Your task to perform on an android device: Search for Mexican restaurants on Maps Image 0: 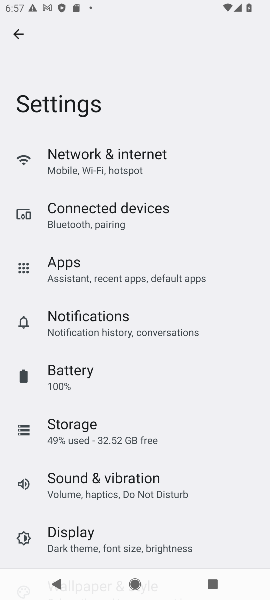
Step 0: press home button
Your task to perform on an android device: Search for Mexican restaurants on Maps Image 1: 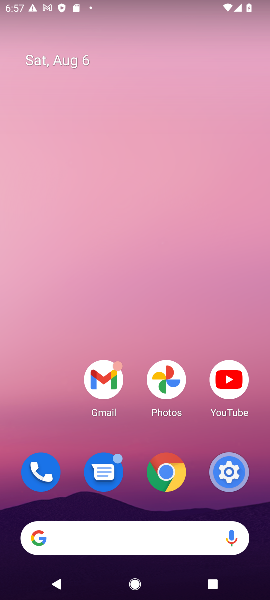
Step 1: drag from (197, 496) to (203, 122)
Your task to perform on an android device: Search for Mexican restaurants on Maps Image 2: 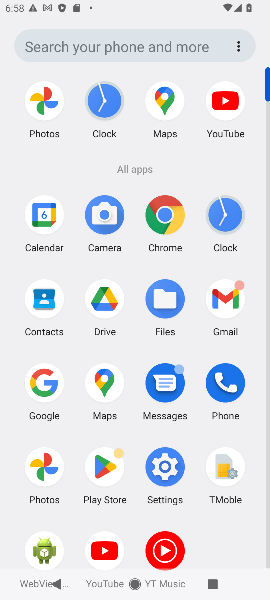
Step 2: click (102, 379)
Your task to perform on an android device: Search for Mexican restaurants on Maps Image 3: 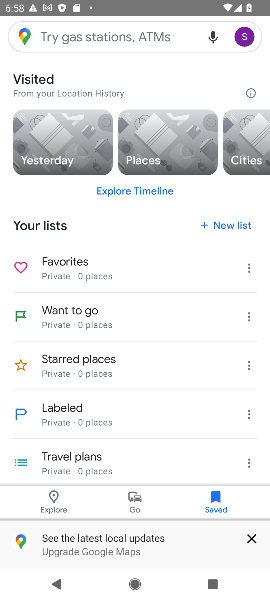
Step 3: press back button
Your task to perform on an android device: Search for Mexican restaurants on Maps Image 4: 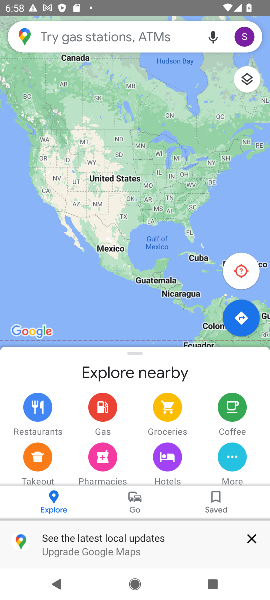
Step 4: click (73, 32)
Your task to perform on an android device: Search for Mexican restaurants on Maps Image 5: 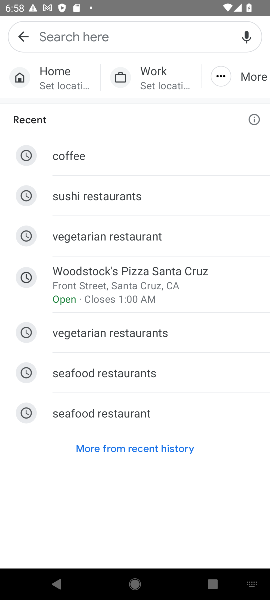
Step 5: type "mexican restaurants"
Your task to perform on an android device: Search for Mexican restaurants on Maps Image 6: 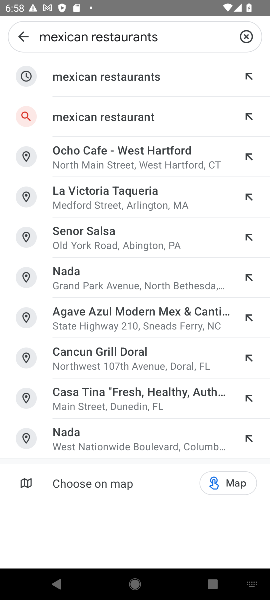
Step 6: click (97, 80)
Your task to perform on an android device: Search for Mexican restaurants on Maps Image 7: 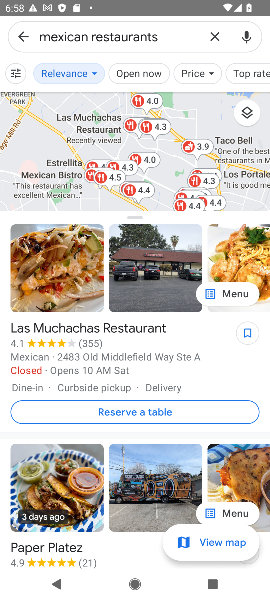
Step 7: task complete